Your task to perform on an android device: Add alienware area 51 to the cart on newegg, then select checkout. Image 0: 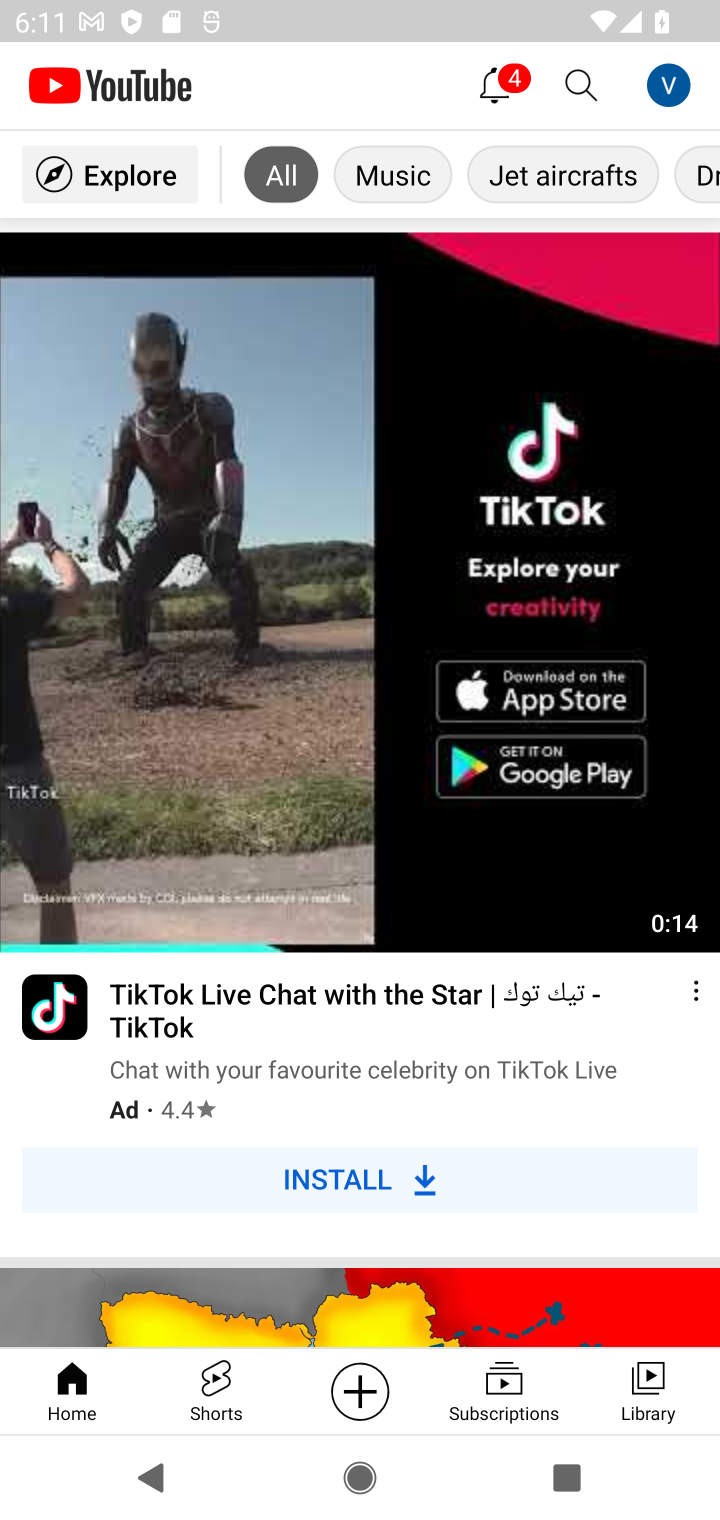
Step 0: press home button
Your task to perform on an android device: Add alienware area 51 to the cart on newegg, then select checkout. Image 1: 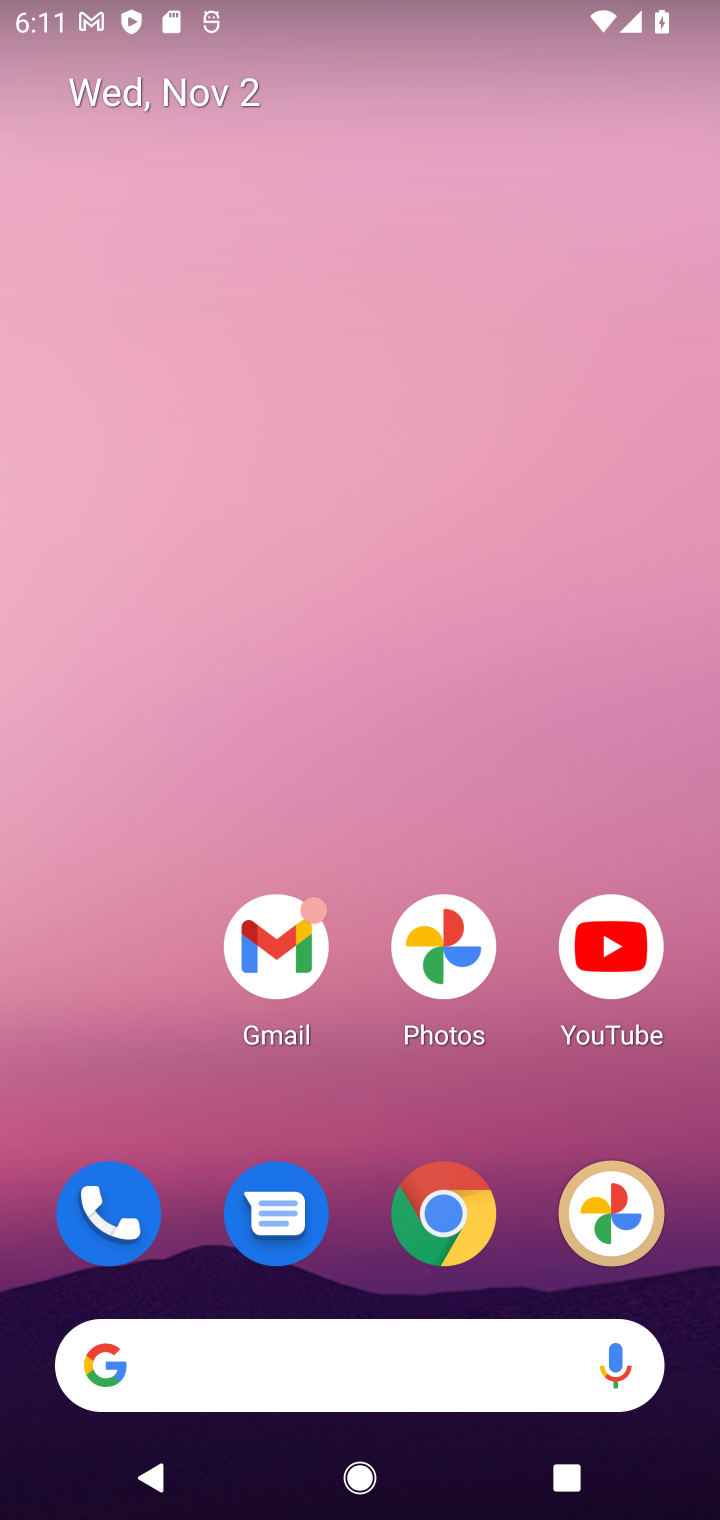
Step 1: click (445, 1216)
Your task to perform on an android device: Add alienware area 51 to the cart on newegg, then select checkout. Image 2: 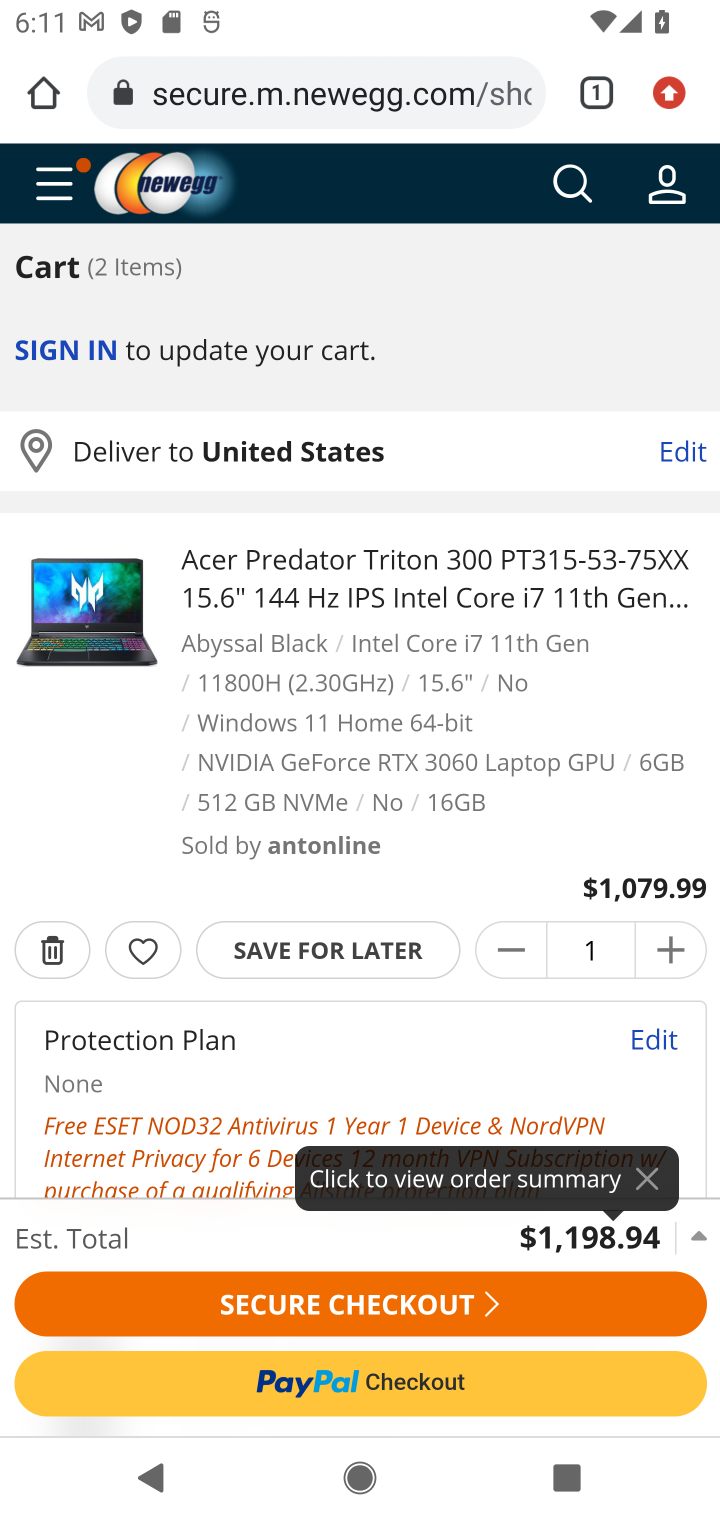
Step 2: click (564, 177)
Your task to perform on an android device: Add alienware area 51 to the cart on newegg, then select checkout. Image 3: 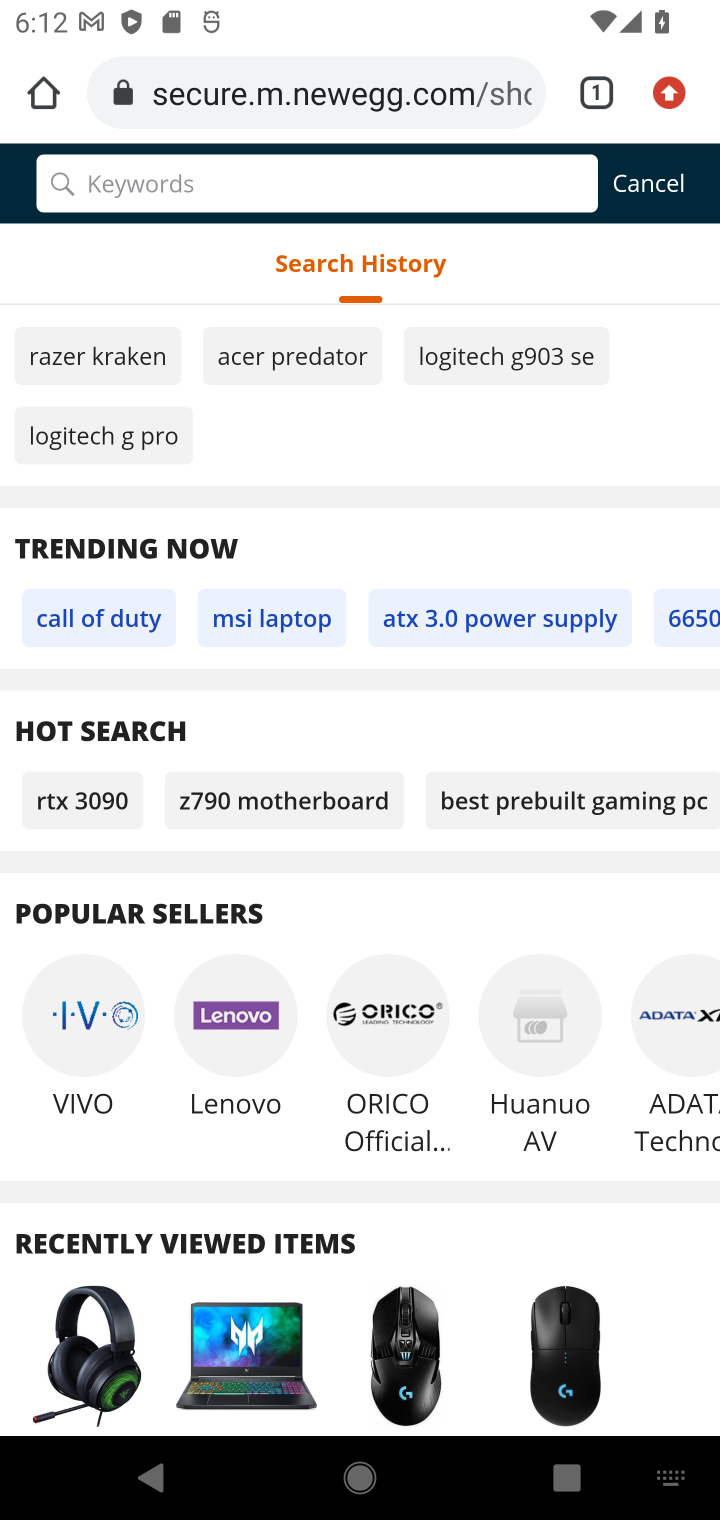
Step 3: type "alienware area 51"
Your task to perform on an android device: Add alienware area 51 to the cart on newegg, then select checkout. Image 4: 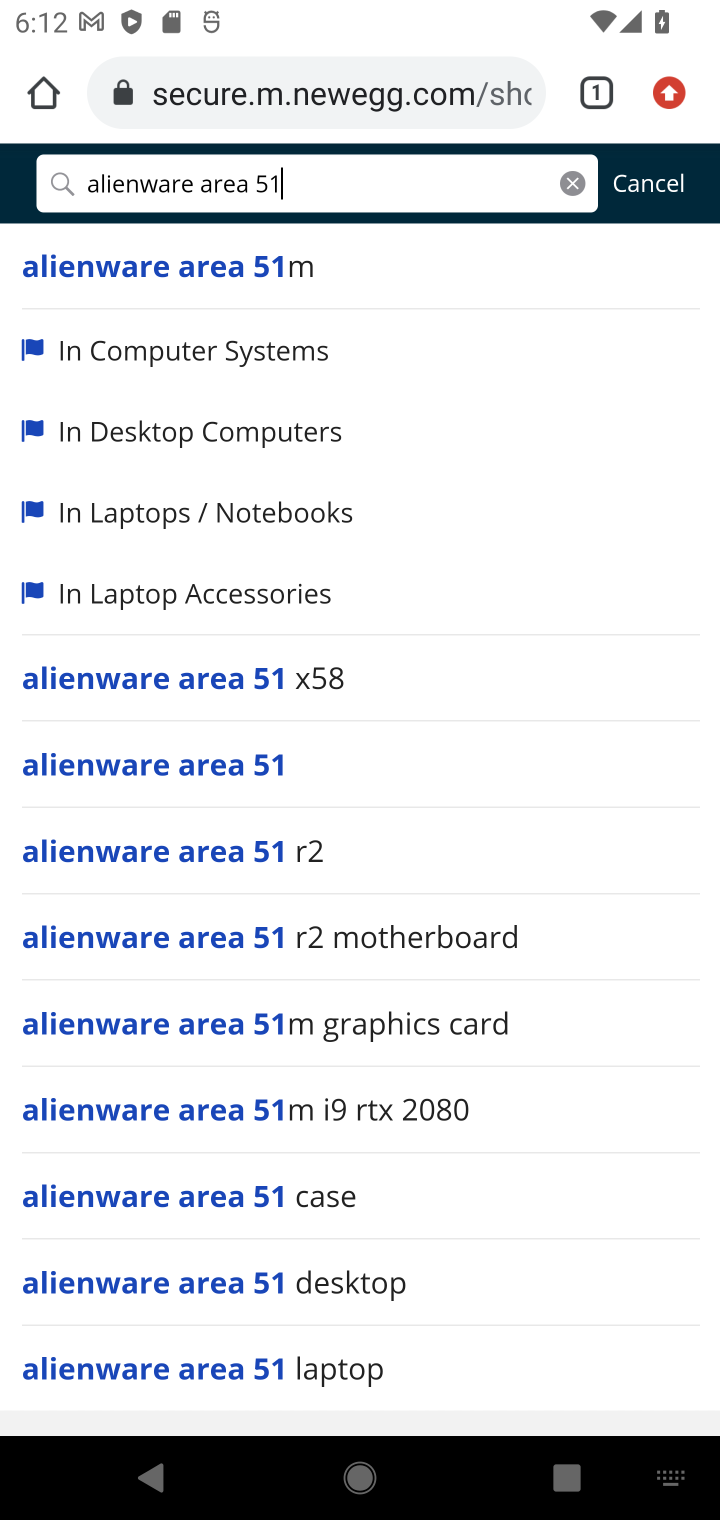
Step 4: click (126, 262)
Your task to perform on an android device: Add alienware area 51 to the cart on newegg, then select checkout. Image 5: 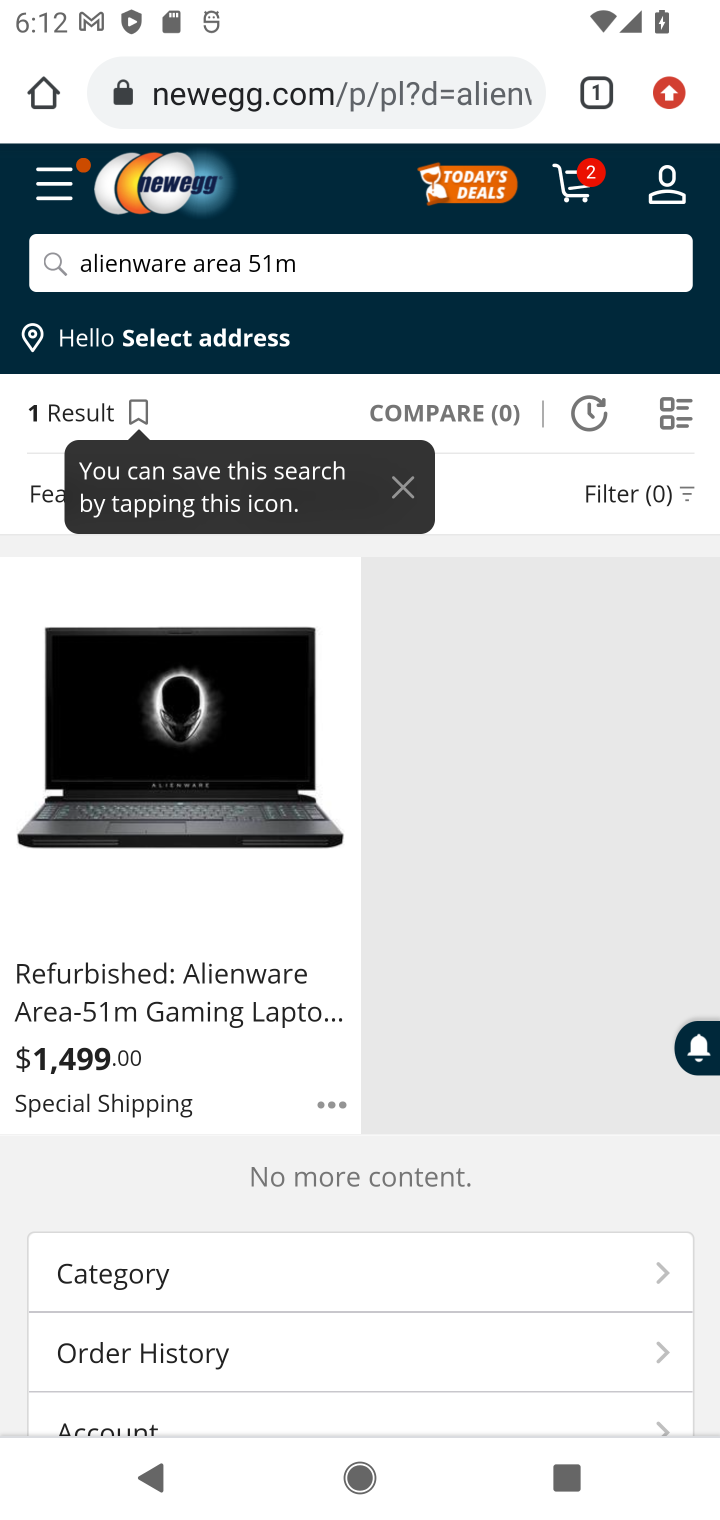
Step 5: click (181, 1003)
Your task to perform on an android device: Add alienware area 51 to the cart on newegg, then select checkout. Image 6: 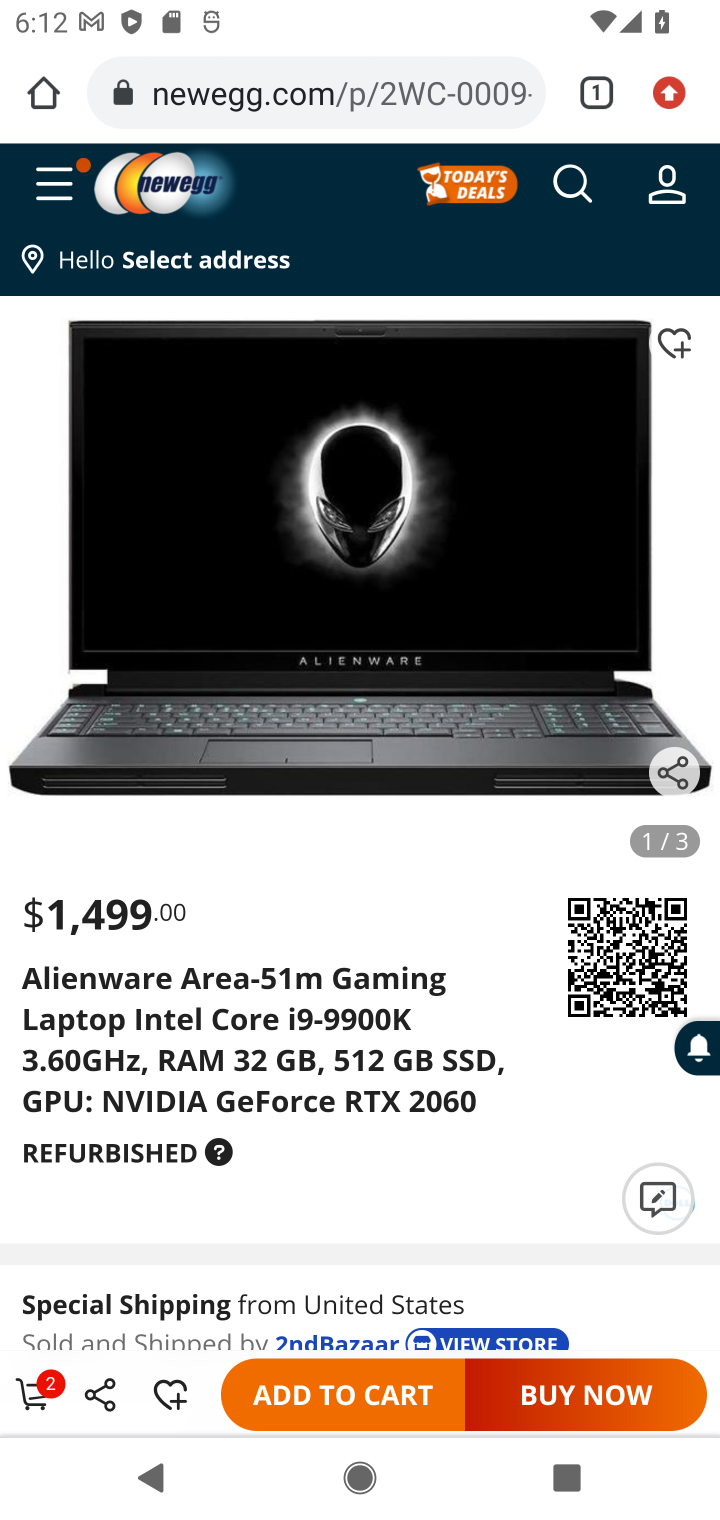
Step 6: click (375, 1389)
Your task to perform on an android device: Add alienware area 51 to the cart on newegg, then select checkout. Image 7: 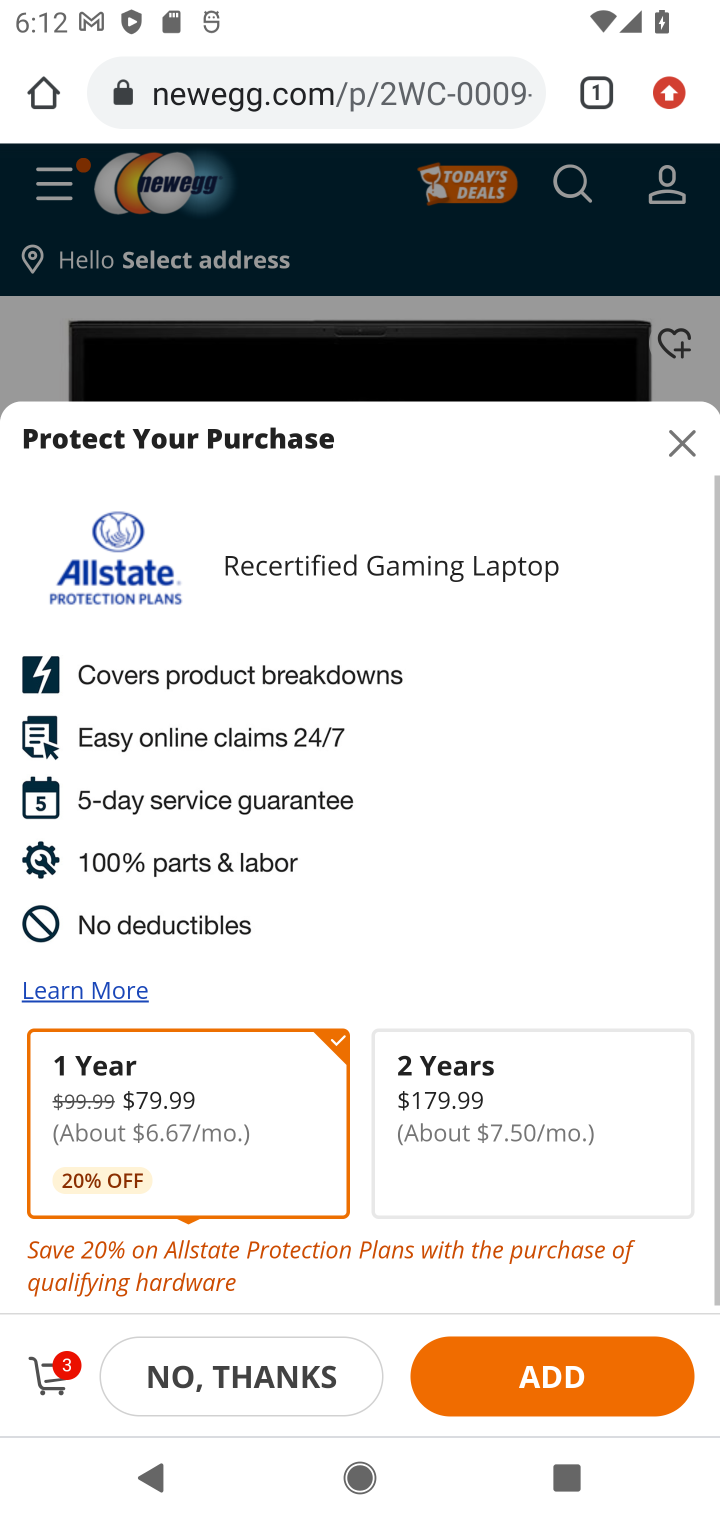
Step 7: click (48, 1380)
Your task to perform on an android device: Add alienware area 51 to the cart on newegg, then select checkout. Image 8: 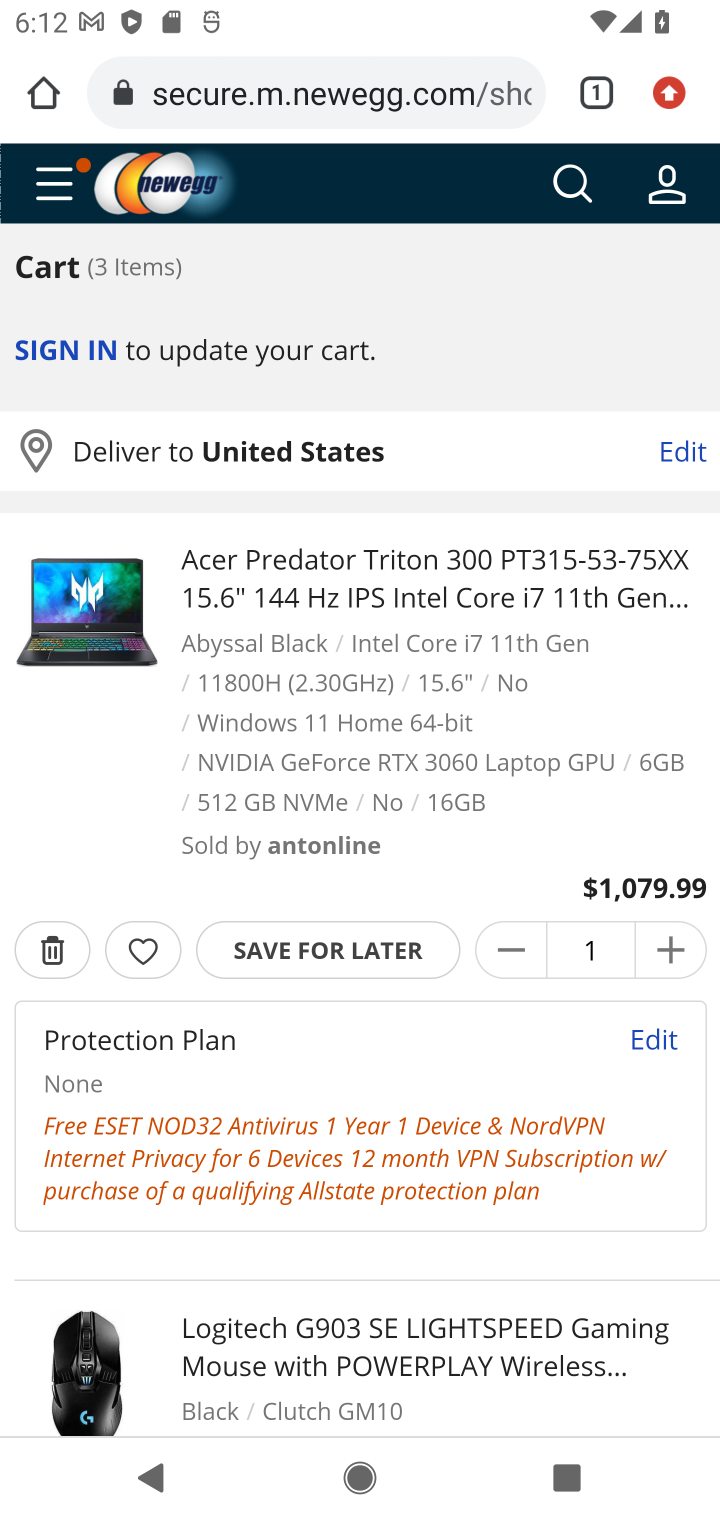
Step 8: drag from (318, 1303) to (344, 713)
Your task to perform on an android device: Add alienware area 51 to the cart on newegg, then select checkout. Image 9: 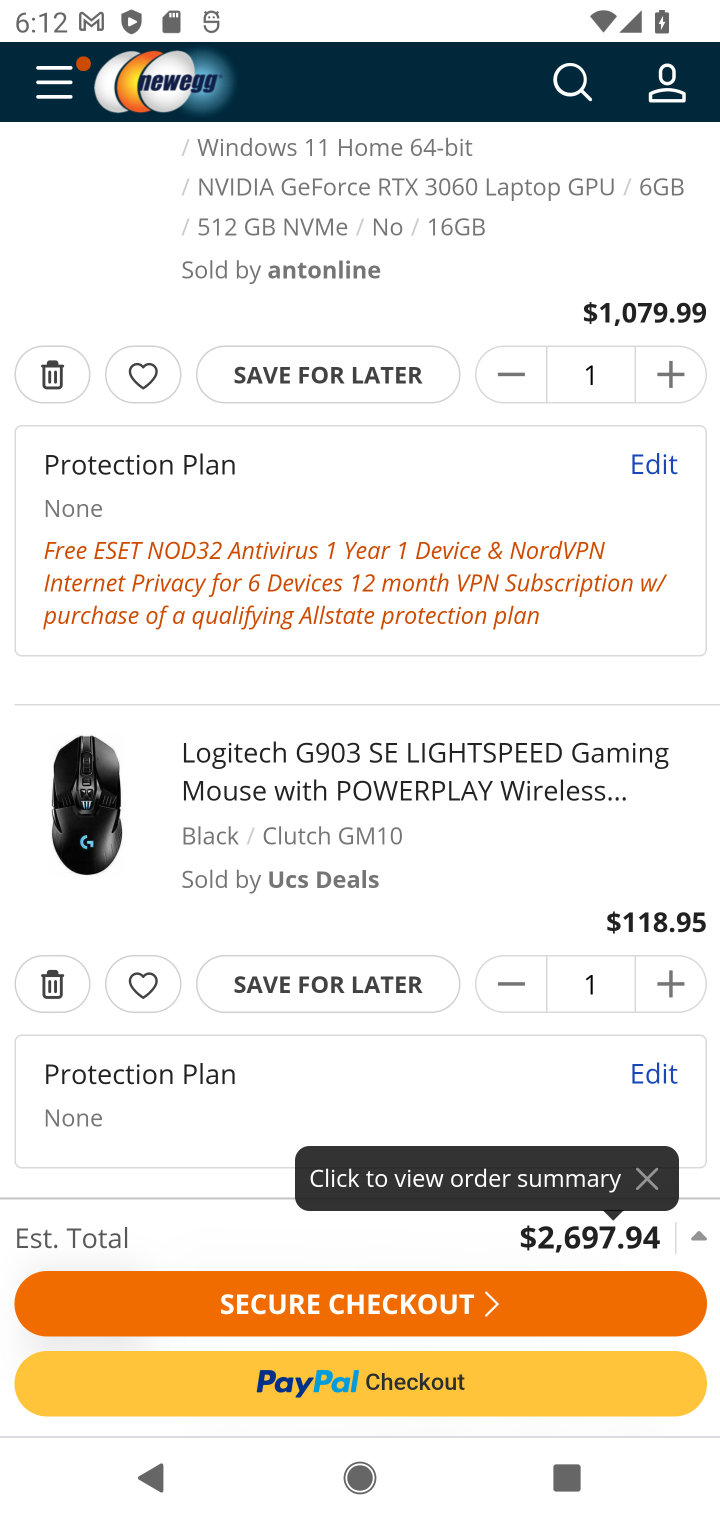
Step 9: click (392, 1300)
Your task to perform on an android device: Add alienware area 51 to the cart on newegg, then select checkout. Image 10: 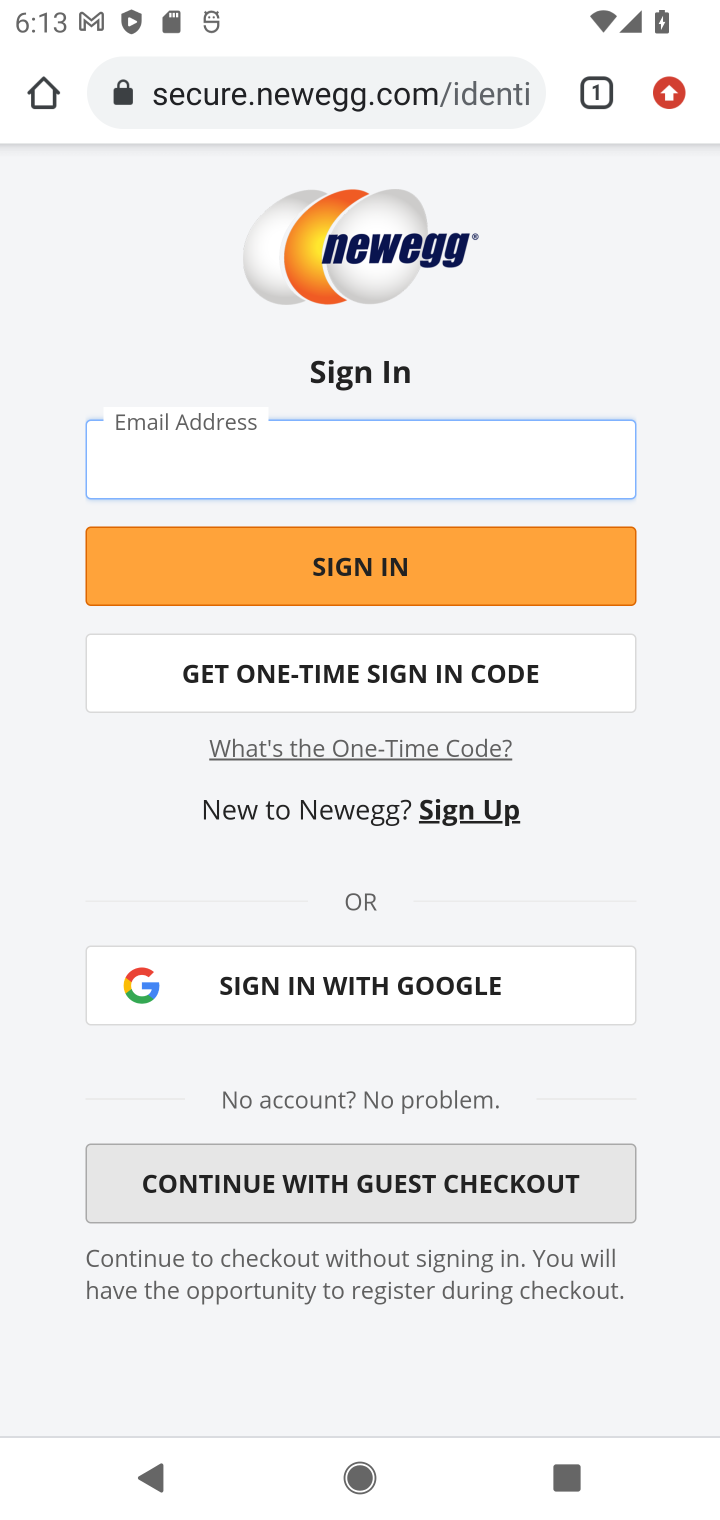
Step 10: task complete